Your task to perform on an android device: Go to settings Image 0: 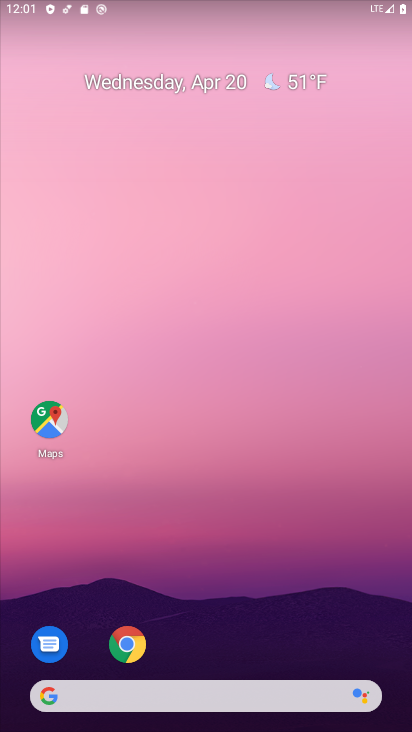
Step 0: drag from (198, 728) to (163, 160)
Your task to perform on an android device: Go to settings Image 1: 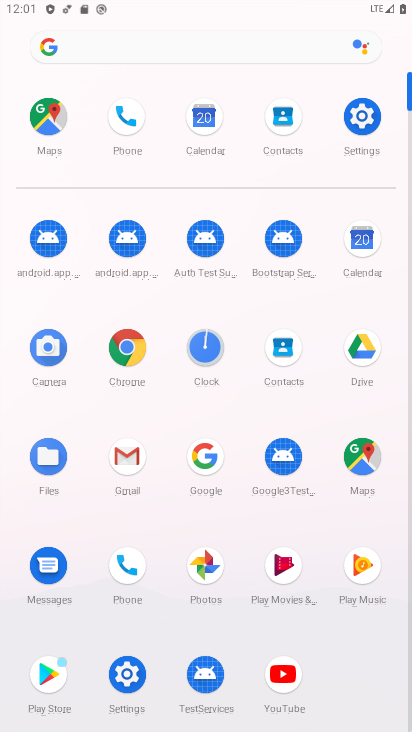
Step 1: click (131, 677)
Your task to perform on an android device: Go to settings Image 2: 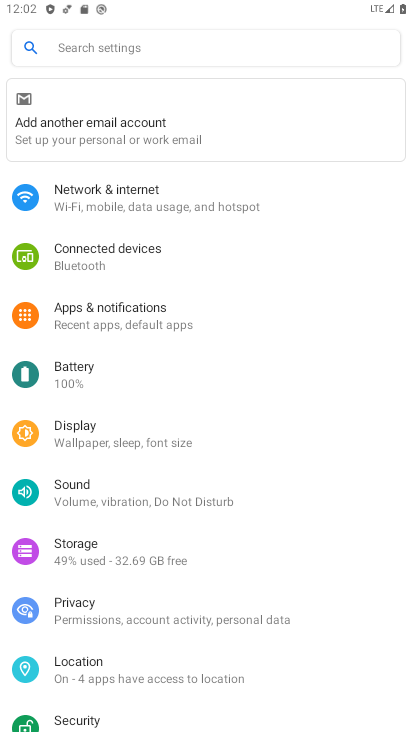
Step 2: task complete